Your task to perform on an android device: all mails in gmail Image 0: 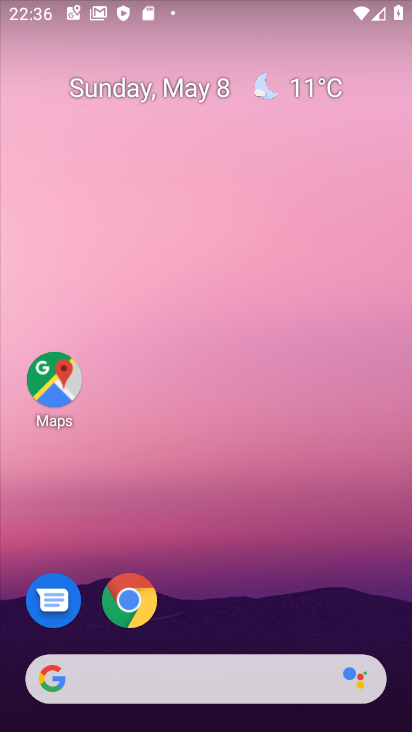
Step 0: drag from (252, 520) to (315, 62)
Your task to perform on an android device: all mails in gmail Image 1: 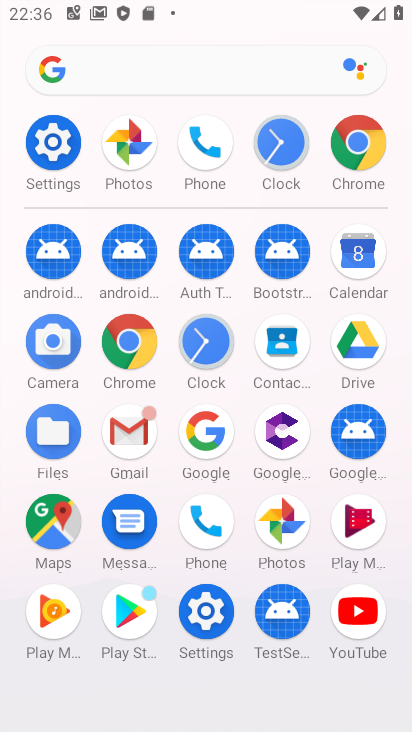
Step 1: click (142, 418)
Your task to perform on an android device: all mails in gmail Image 2: 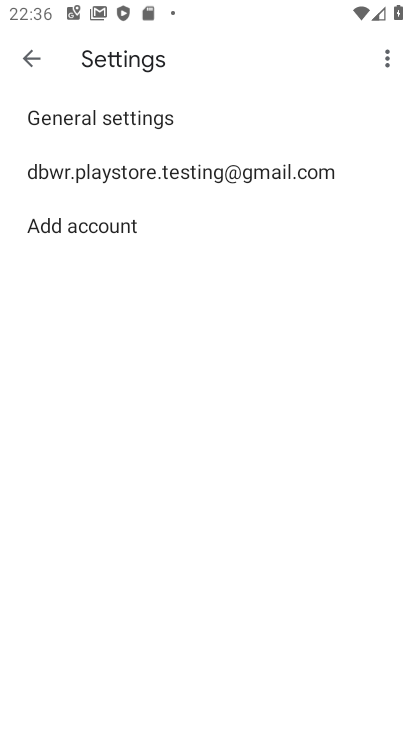
Step 2: click (107, 187)
Your task to perform on an android device: all mails in gmail Image 3: 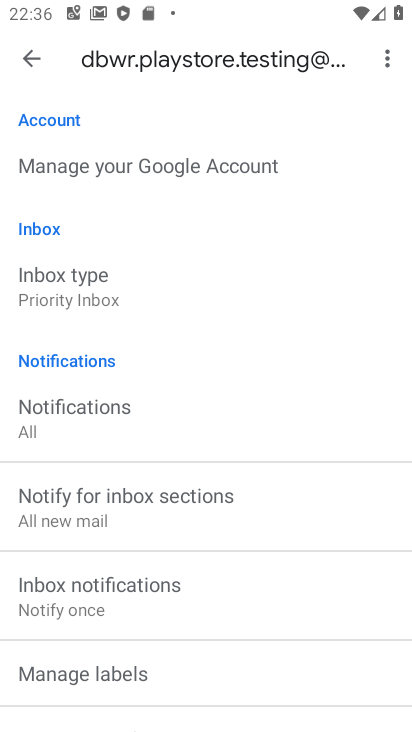
Step 3: click (44, 78)
Your task to perform on an android device: all mails in gmail Image 4: 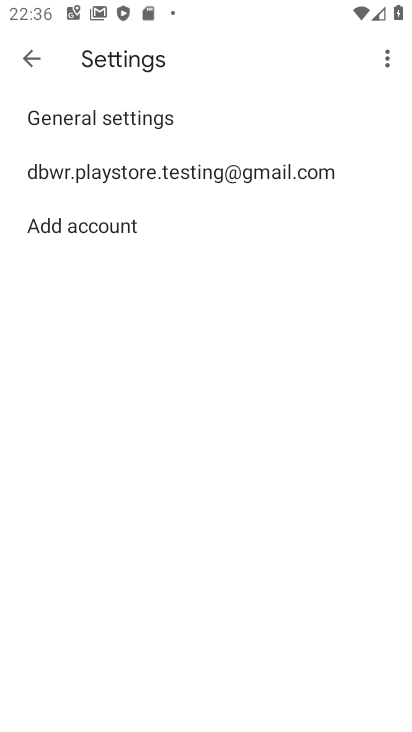
Step 4: click (44, 78)
Your task to perform on an android device: all mails in gmail Image 5: 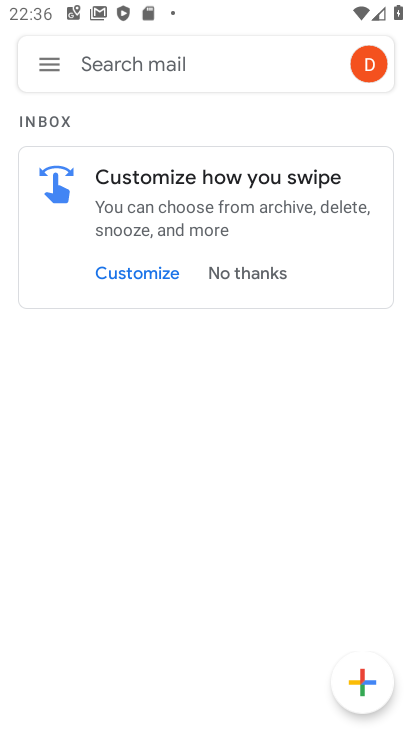
Step 5: click (44, 78)
Your task to perform on an android device: all mails in gmail Image 6: 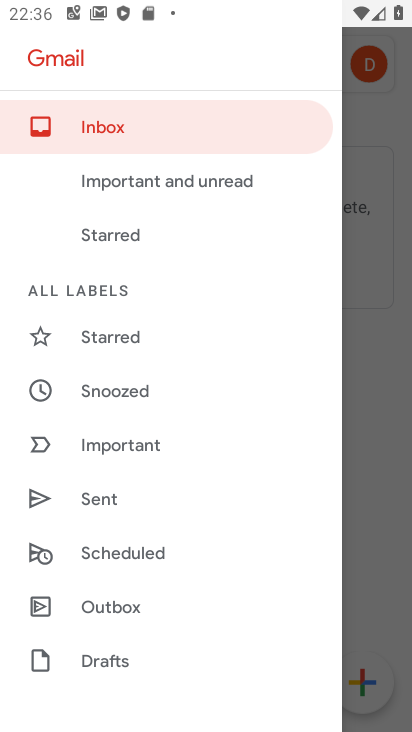
Step 6: drag from (104, 571) to (151, 267)
Your task to perform on an android device: all mails in gmail Image 7: 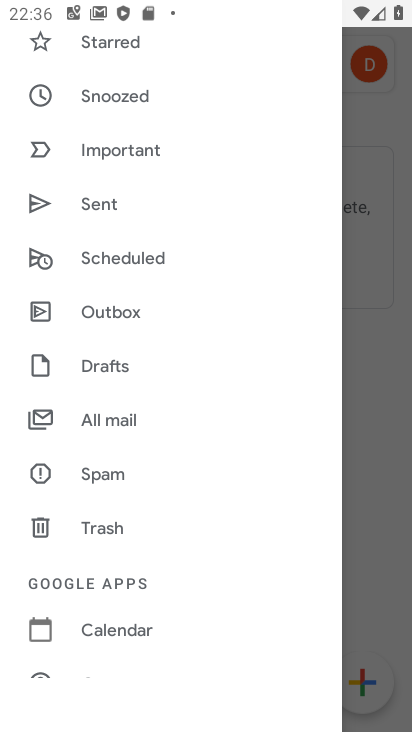
Step 7: click (122, 429)
Your task to perform on an android device: all mails in gmail Image 8: 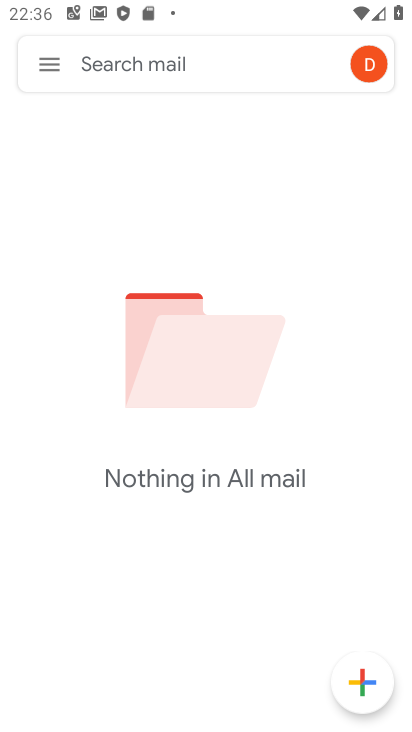
Step 8: task complete